Your task to perform on an android device: What is the recent news? Image 0: 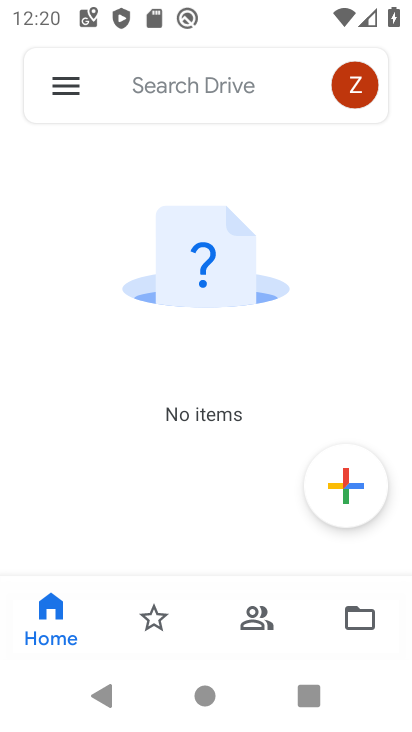
Step 0: press home button
Your task to perform on an android device: What is the recent news? Image 1: 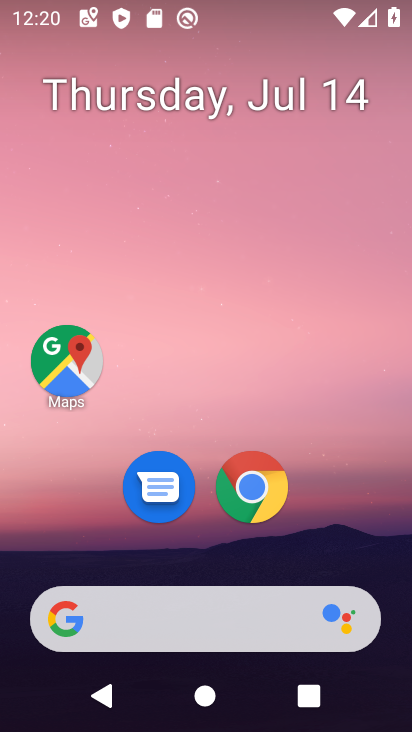
Step 1: drag from (260, 575) to (247, 67)
Your task to perform on an android device: What is the recent news? Image 2: 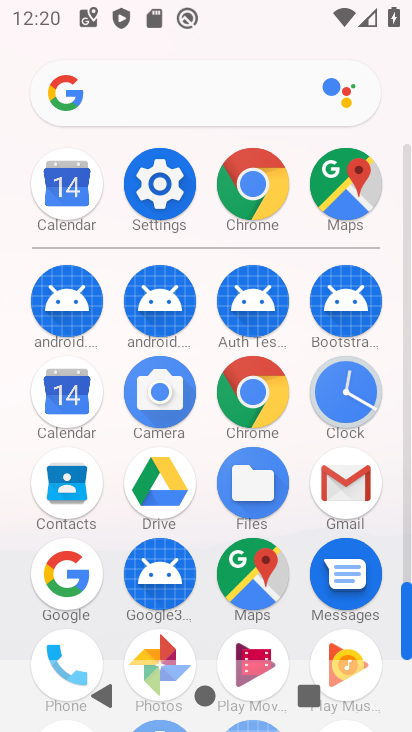
Step 2: click (82, 597)
Your task to perform on an android device: What is the recent news? Image 3: 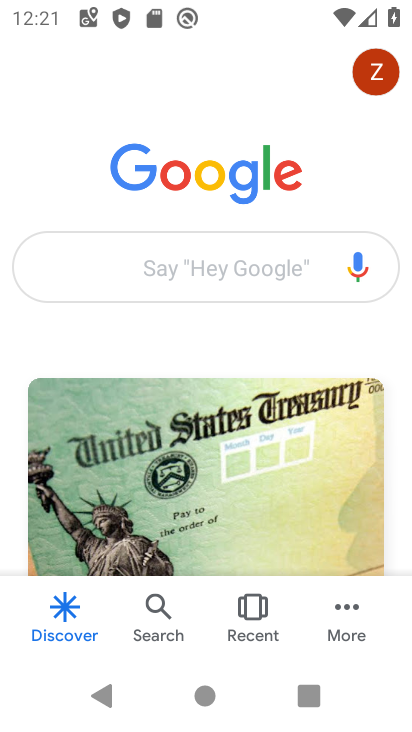
Step 3: click (196, 272)
Your task to perform on an android device: What is the recent news? Image 4: 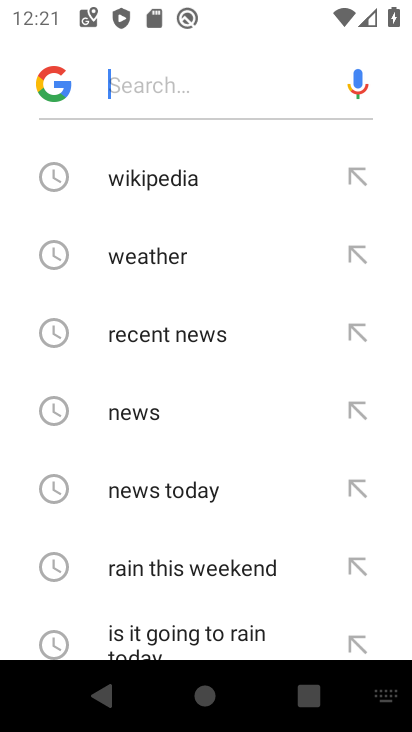
Step 4: click (173, 331)
Your task to perform on an android device: What is the recent news? Image 5: 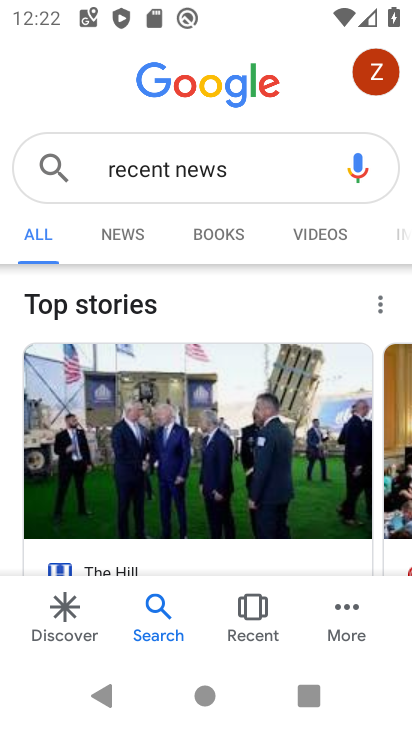
Step 5: click (146, 248)
Your task to perform on an android device: What is the recent news? Image 6: 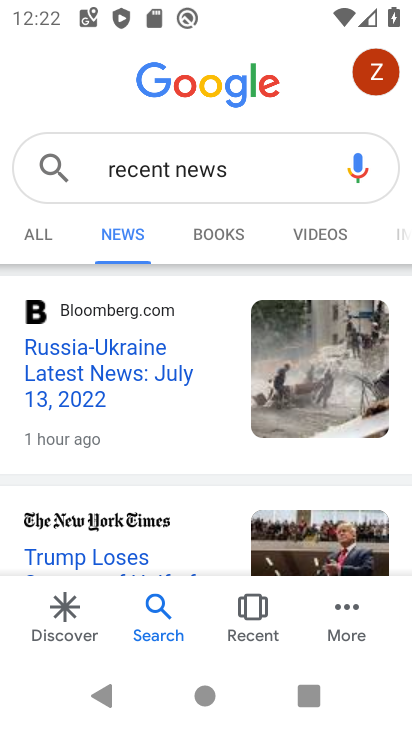
Step 6: task complete